Your task to perform on an android device: change keyboard looks Image 0: 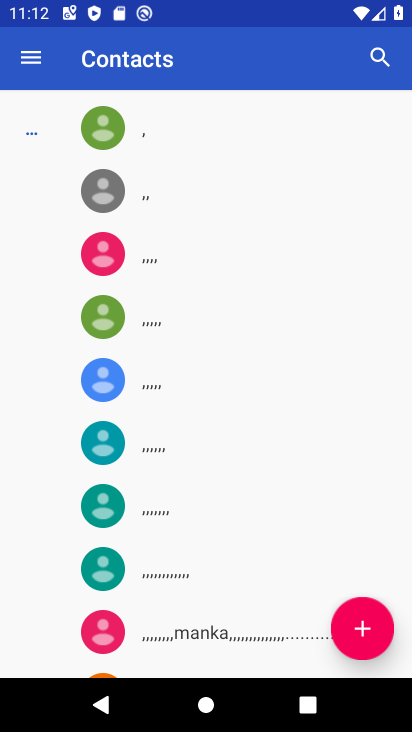
Step 0: press home button
Your task to perform on an android device: change keyboard looks Image 1: 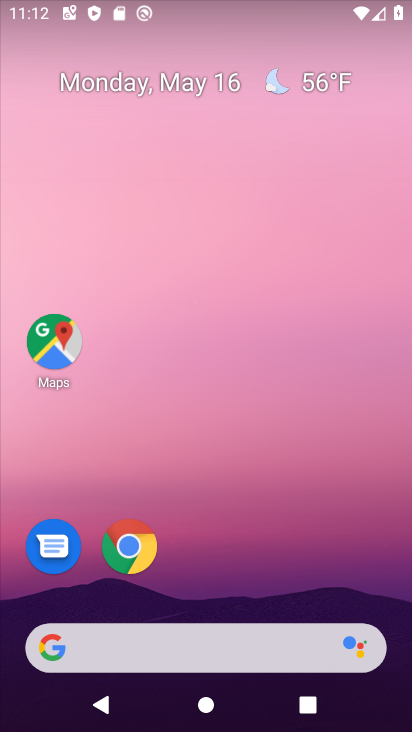
Step 1: drag from (274, 341) to (258, 84)
Your task to perform on an android device: change keyboard looks Image 2: 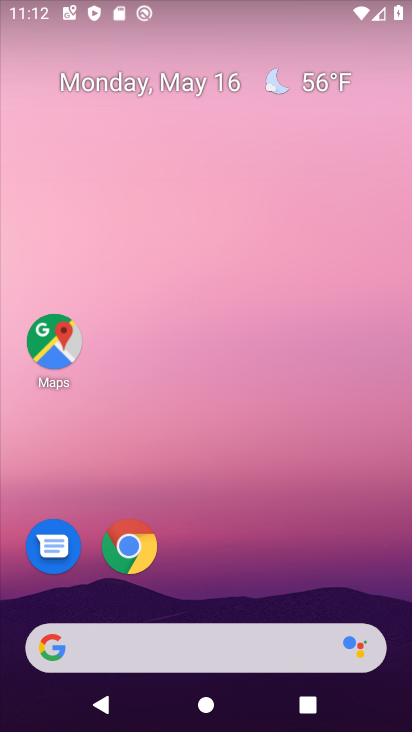
Step 2: drag from (300, 521) to (292, 79)
Your task to perform on an android device: change keyboard looks Image 3: 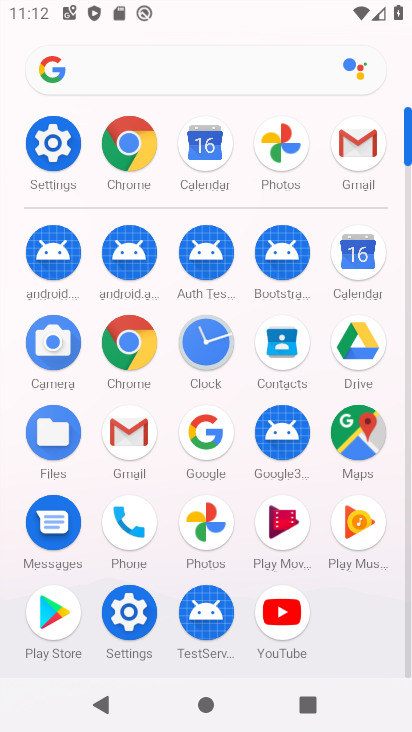
Step 3: click (59, 148)
Your task to perform on an android device: change keyboard looks Image 4: 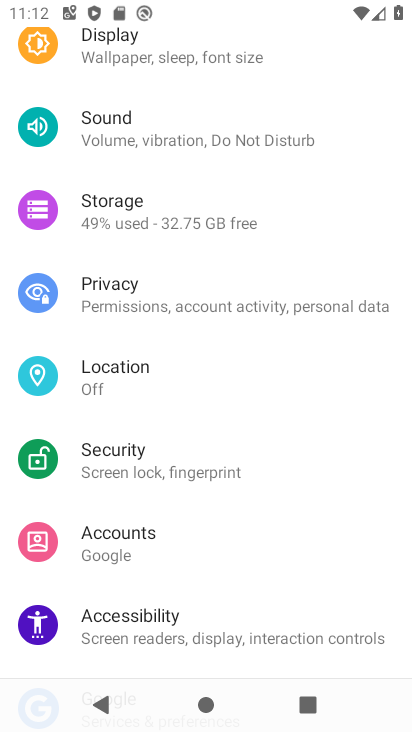
Step 4: drag from (183, 573) to (173, 146)
Your task to perform on an android device: change keyboard looks Image 5: 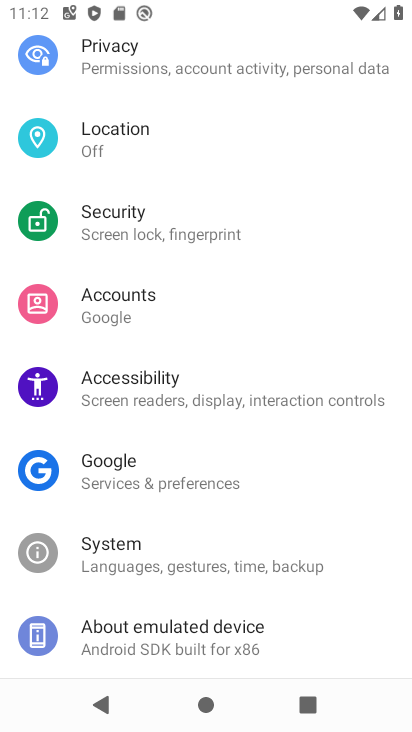
Step 5: drag from (178, 570) to (245, 151)
Your task to perform on an android device: change keyboard looks Image 6: 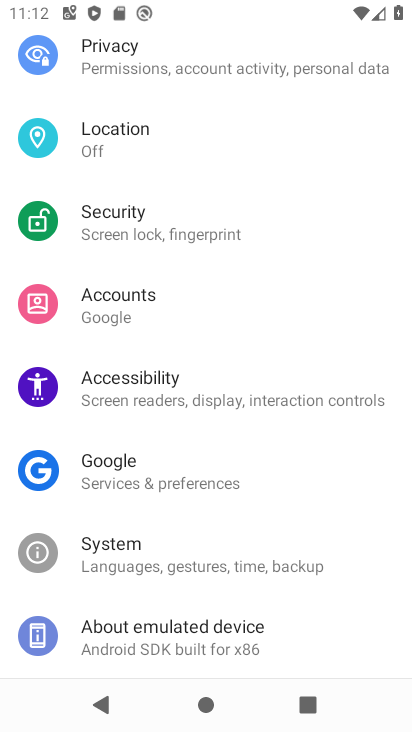
Step 6: drag from (151, 598) to (170, 241)
Your task to perform on an android device: change keyboard looks Image 7: 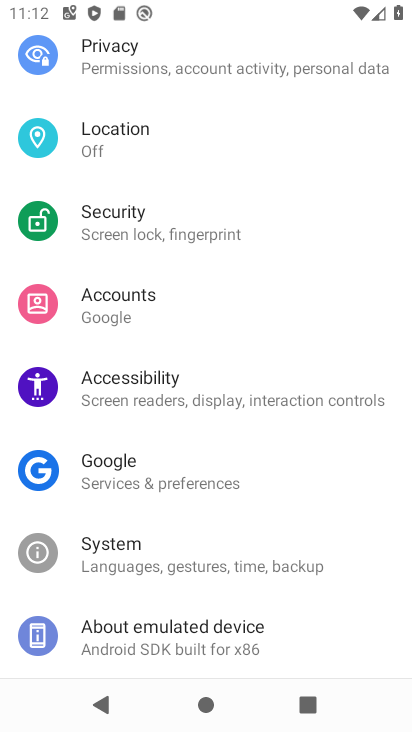
Step 7: click (161, 632)
Your task to perform on an android device: change keyboard looks Image 8: 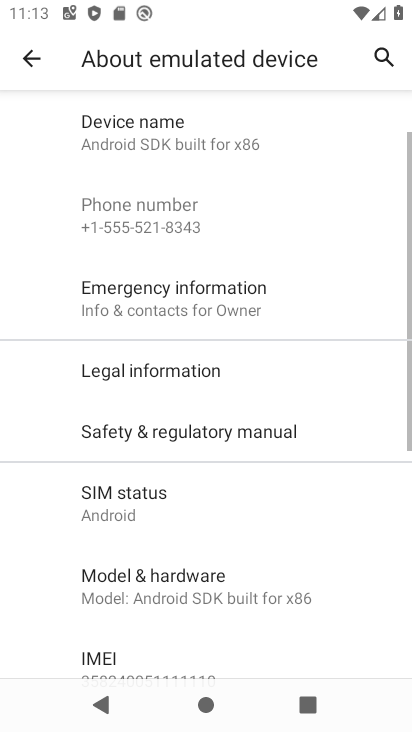
Step 8: drag from (158, 589) to (168, 298)
Your task to perform on an android device: change keyboard looks Image 9: 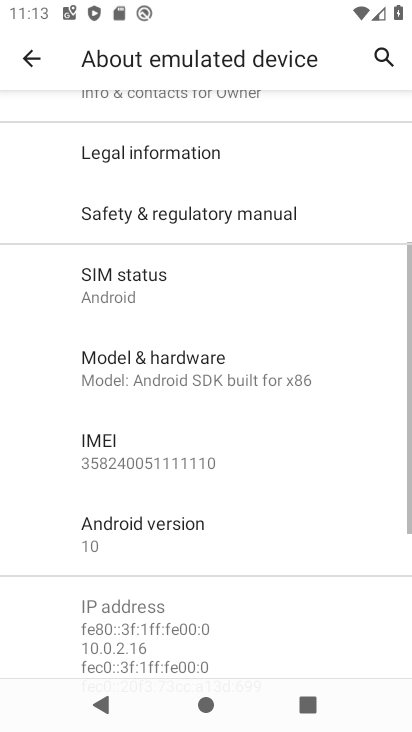
Step 9: click (22, 59)
Your task to perform on an android device: change keyboard looks Image 10: 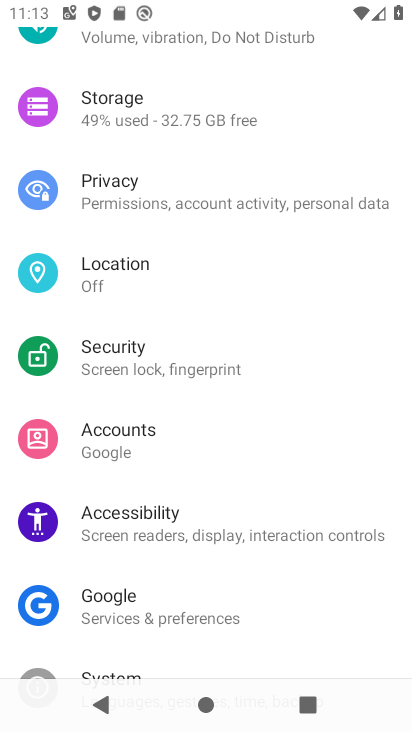
Step 10: drag from (169, 586) to (255, 107)
Your task to perform on an android device: change keyboard looks Image 11: 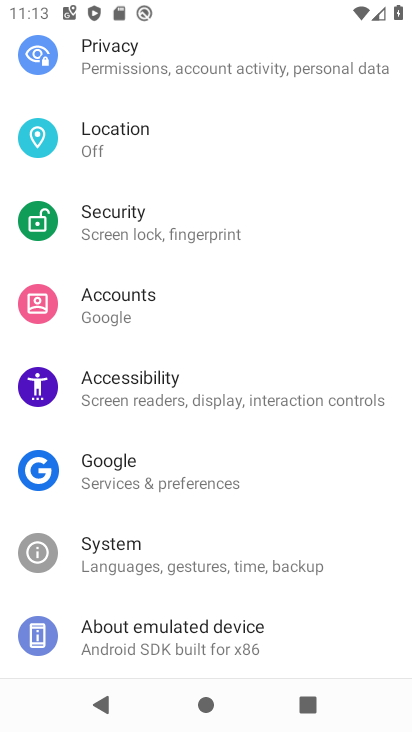
Step 11: drag from (269, 583) to (225, 231)
Your task to perform on an android device: change keyboard looks Image 12: 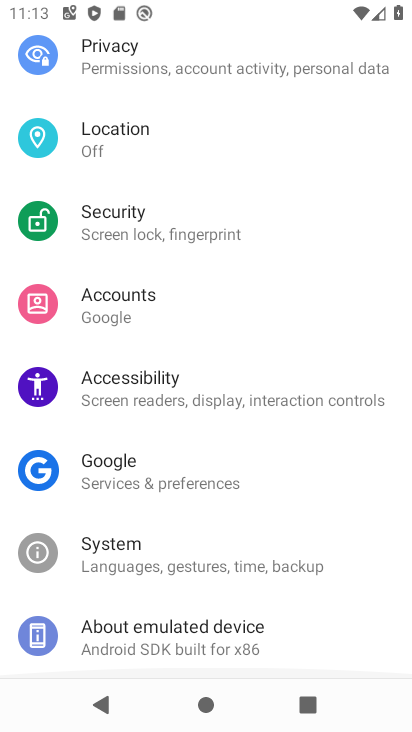
Step 12: click (155, 539)
Your task to perform on an android device: change keyboard looks Image 13: 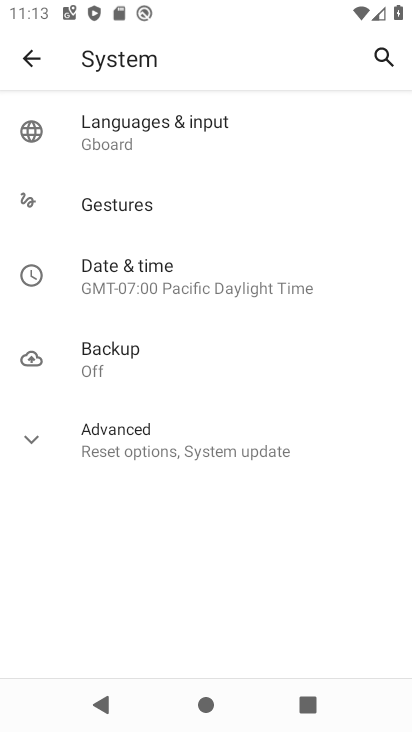
Step 13: click (150, 154)
Your task to perform on an android device: change keyboard looks Image 14: 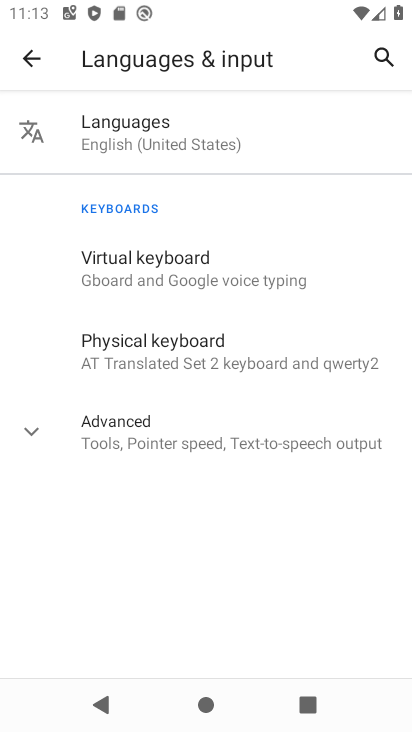
Step 14: click (190, 270)
Your task to perform on an android device: change keyboard looks Image 15: 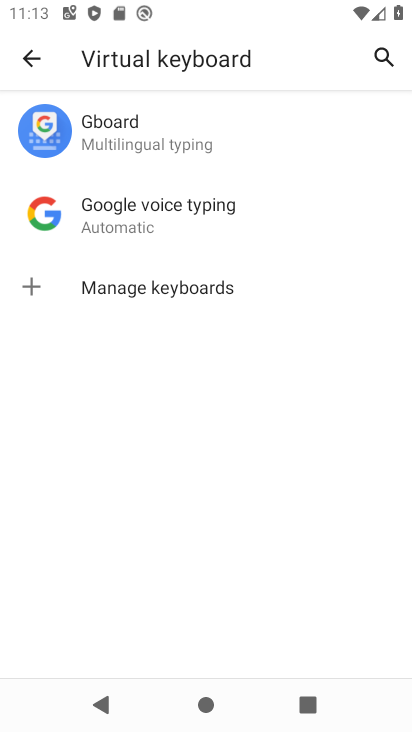
Step 15: click (114, 132)
Your task to perform on an android device: change keyboard looks Image 16: 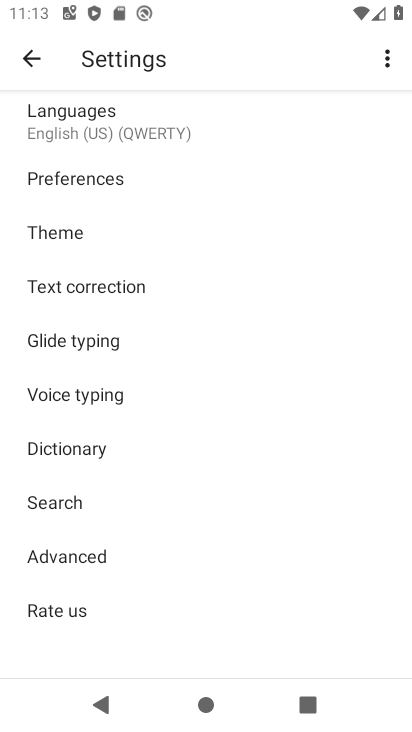
Step 16: task complete